Your task to perform on an android device: Empty the shopping cart on walmart. Image 0: 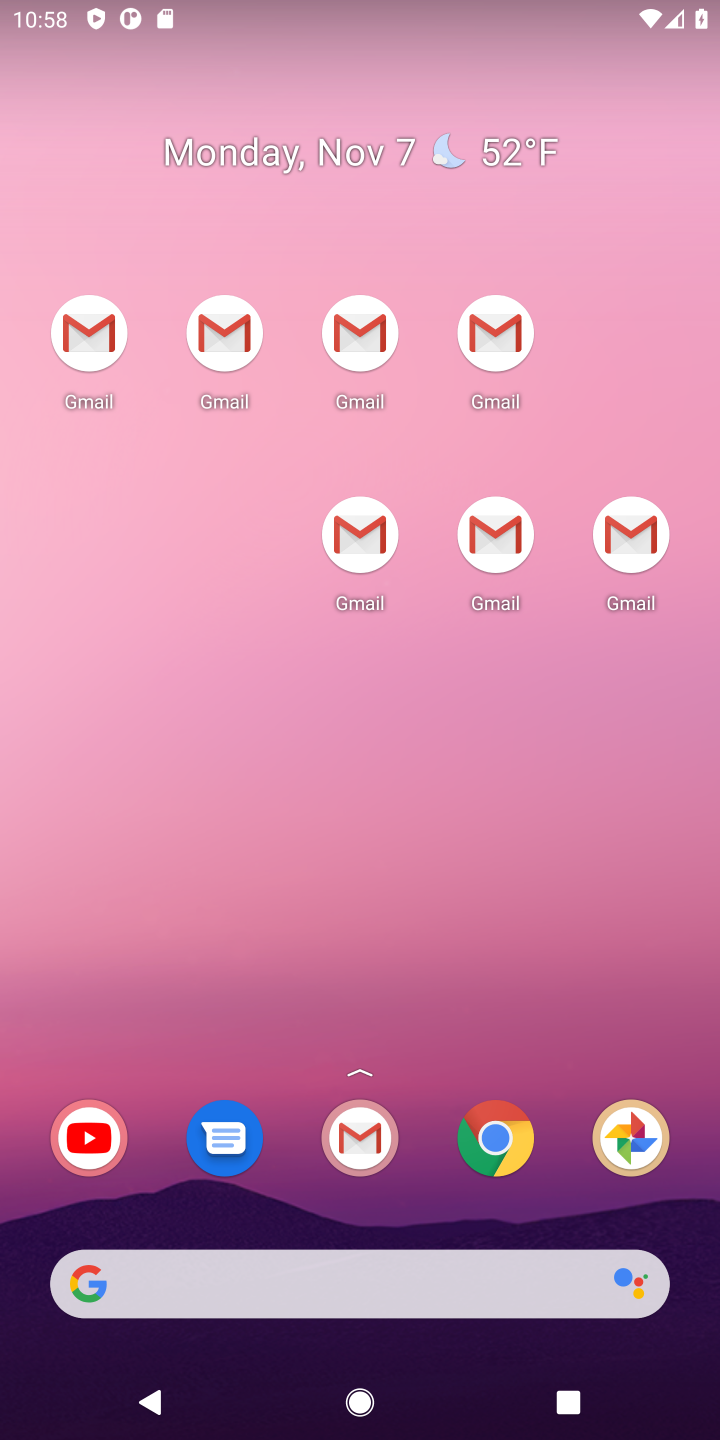
Step 0: drag from (389, 1215) to (391, 0)
Your task to perform on an android device: Empty the shopping cart on walmart. Image 1: 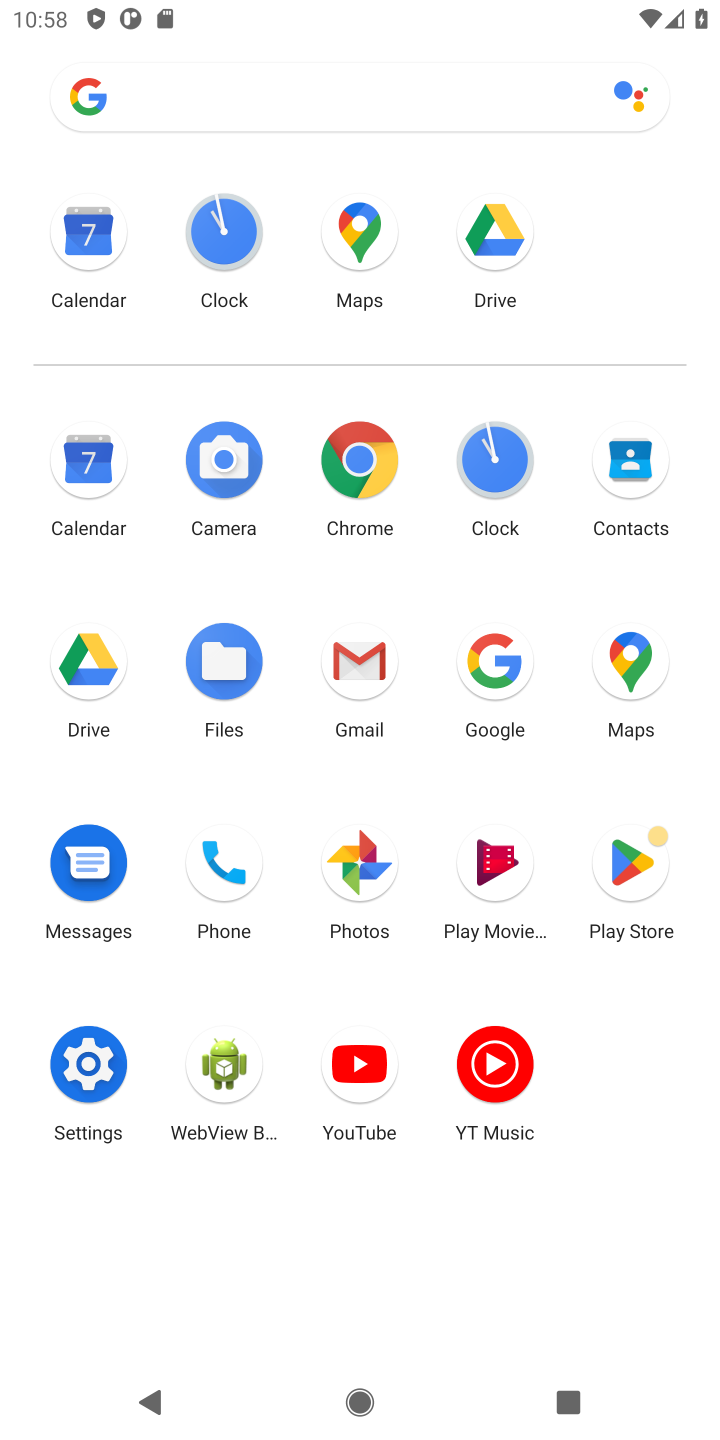
Step 1: click (522, 695)
Your task to perform on an android device: Empty the shopping cart on walmart. Image 2: 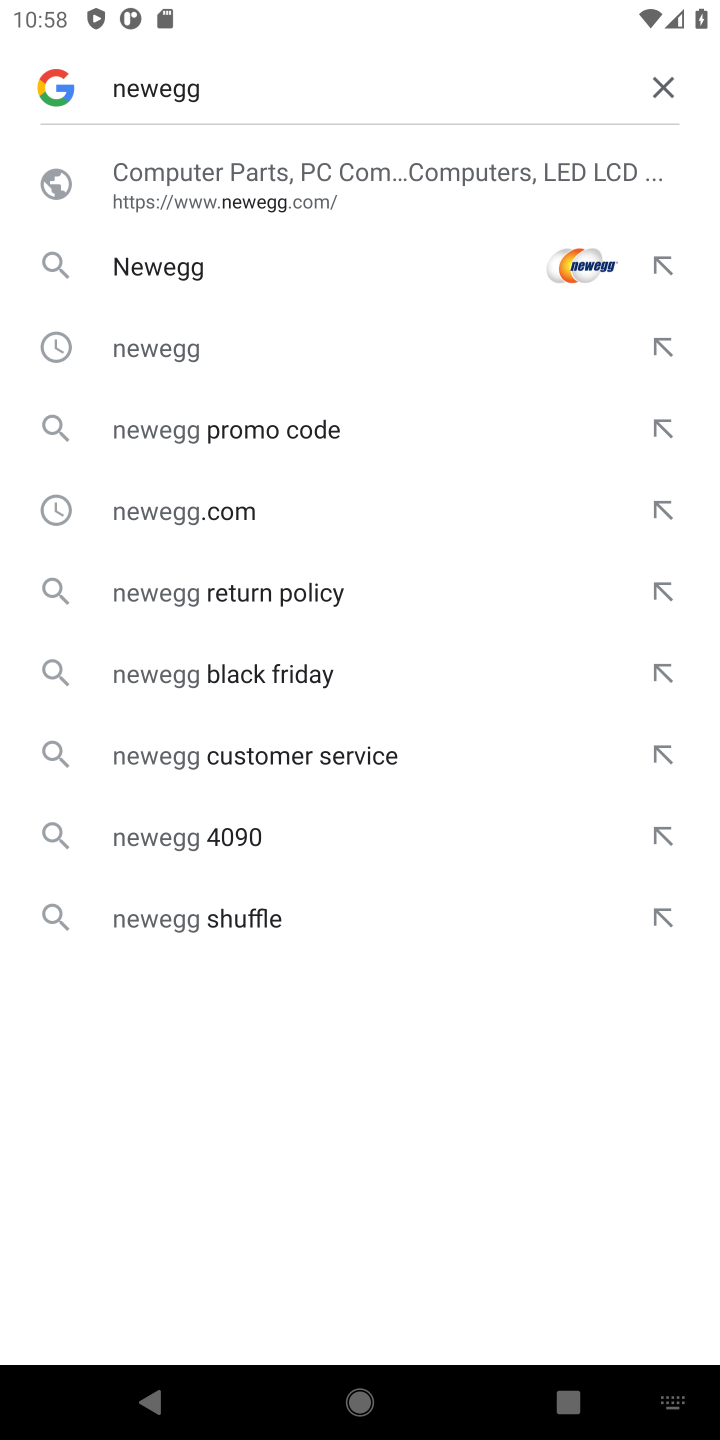
Step 2: click (671, 88)
Your task to perform on an android device: Empty the shopping cart on walmart. Image 3: 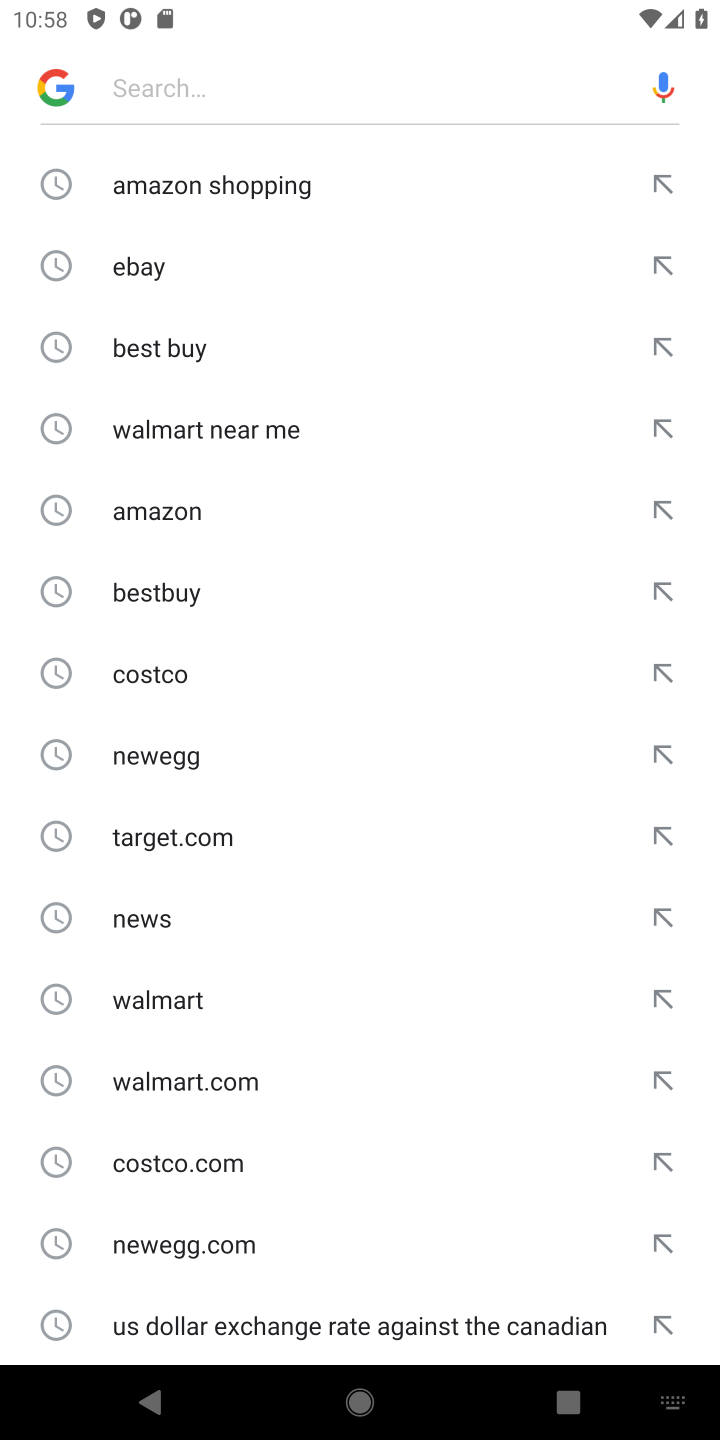
Step 3: type "walmart"
Your task to perform on an android device: Empty the shopping cart on walmart. Image 4: 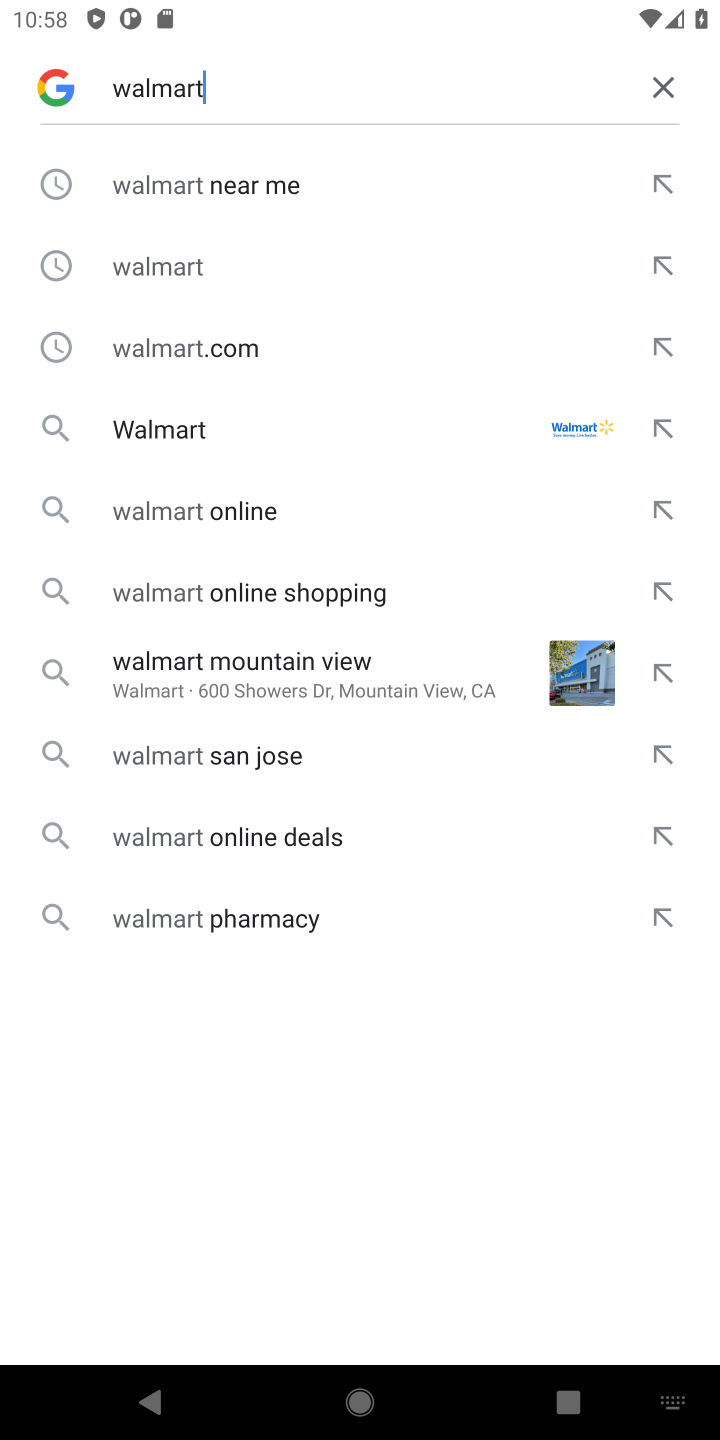
Step 4: click (335, 261)
Your task to perform on an android device: Empty the shopping cart on walmart. Image 5: 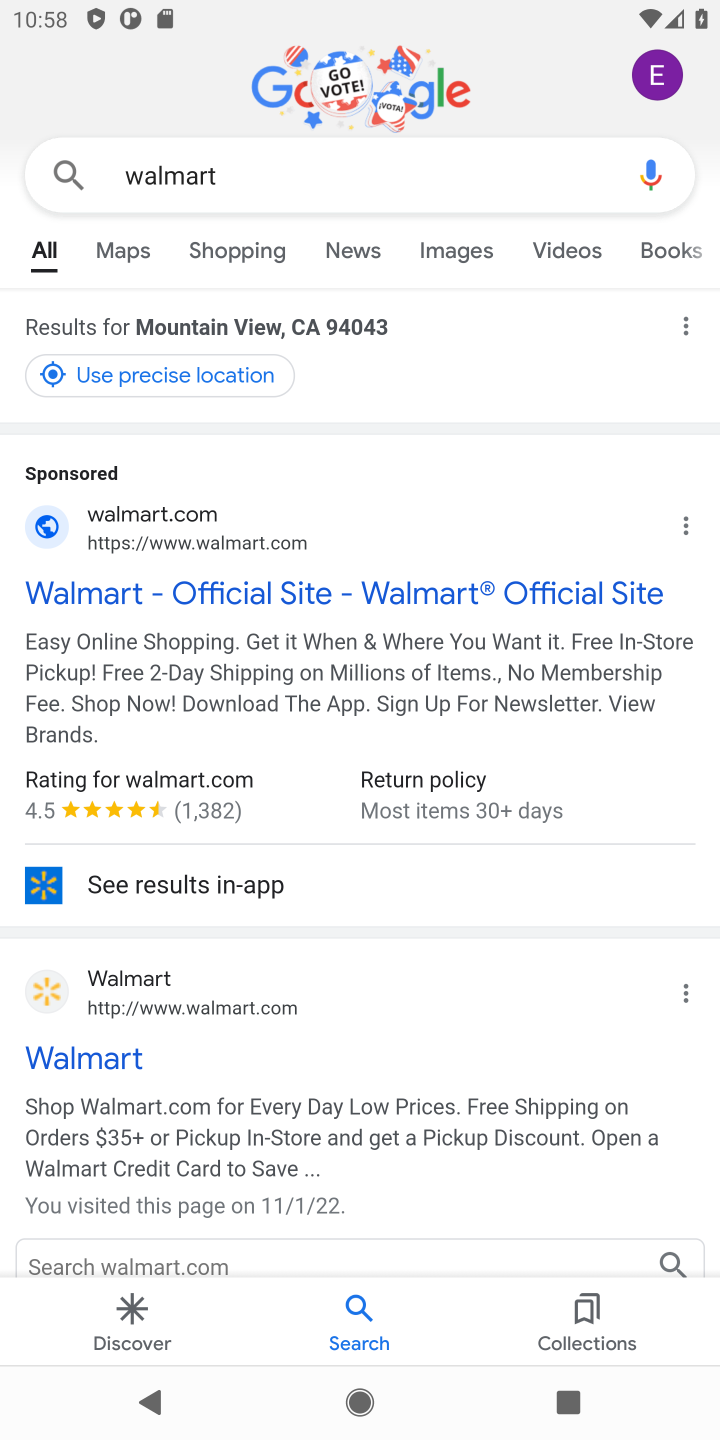
Step 5: click (245, 597)
Your task to perform on an android device: Empty the shopping cart on walmart. Image 6: 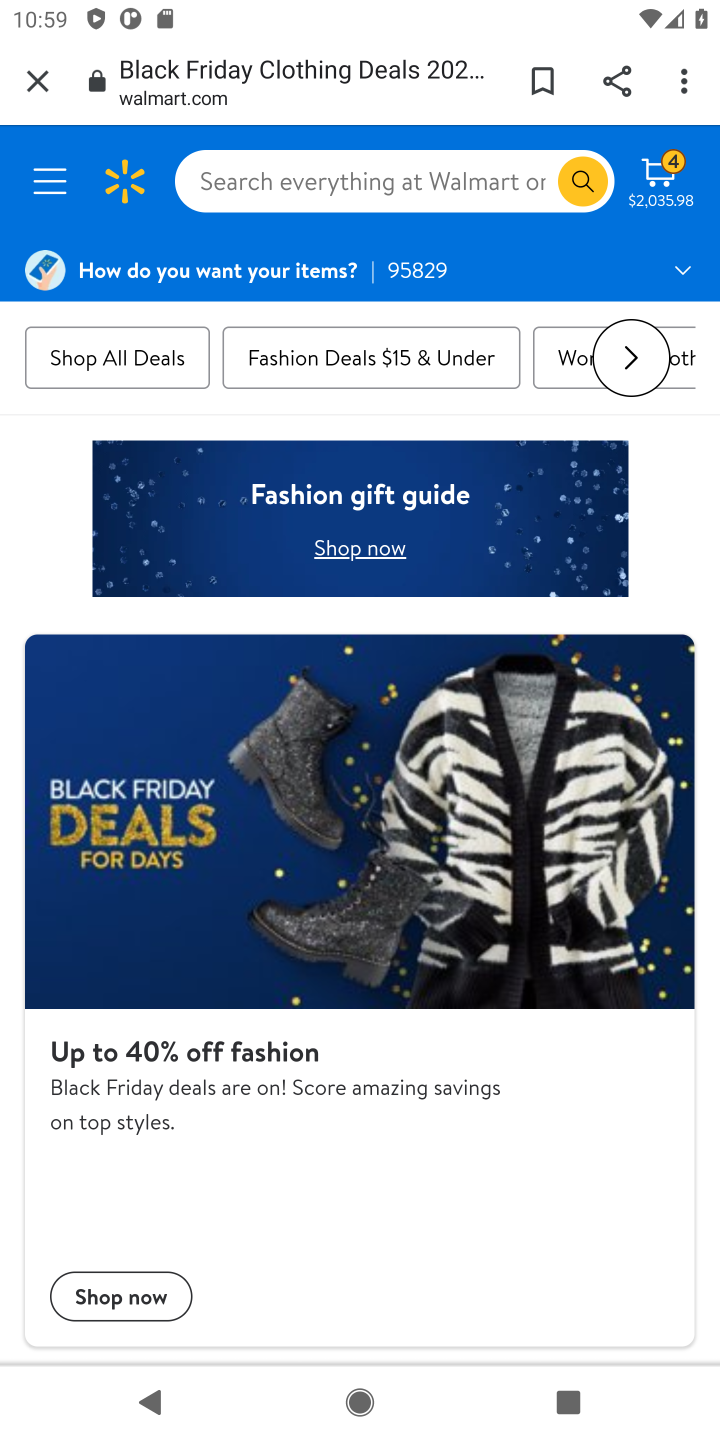
Step 6: click (683, 194)
Your task to perform on an android device: Empty the shopping cart on walmart. Image 7: 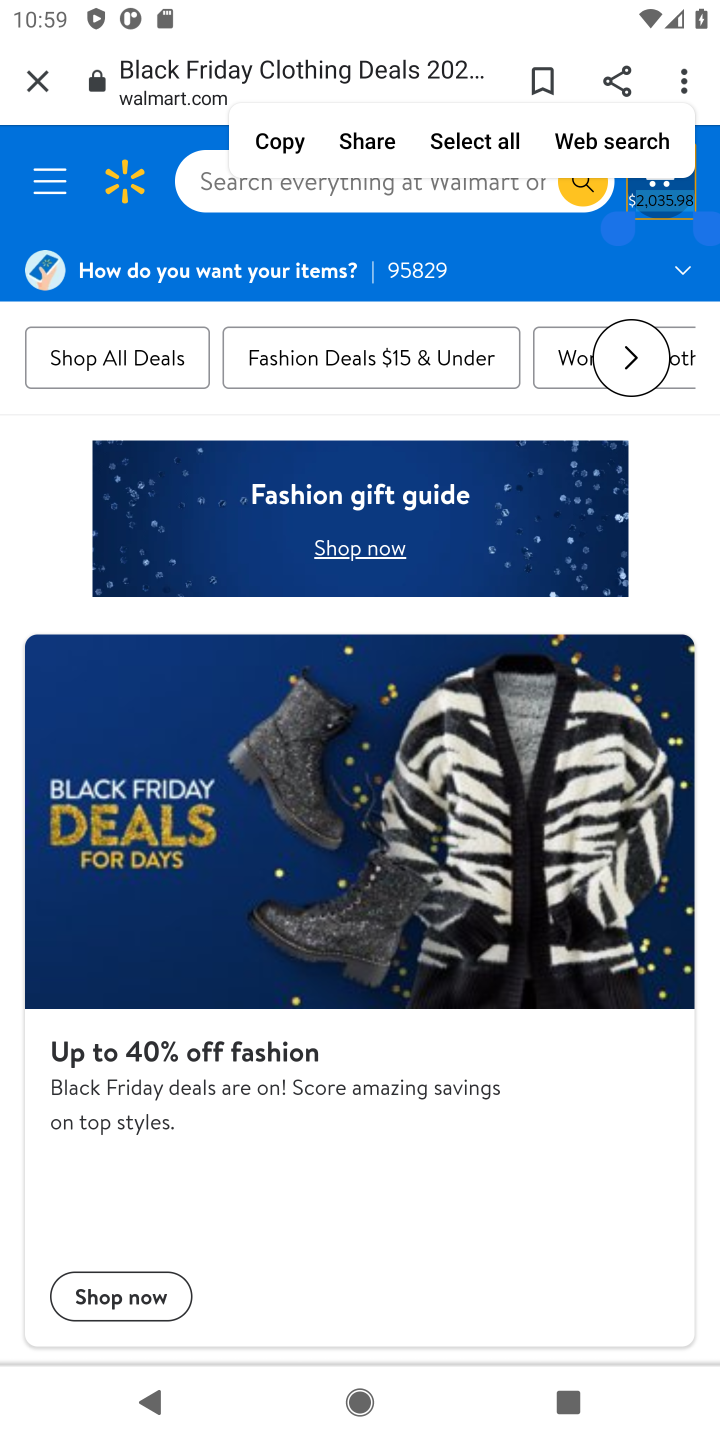
Step 7: click (550, 283)
Your task to perform on an android device: Empty the shopping cart on walmart. Image 8: 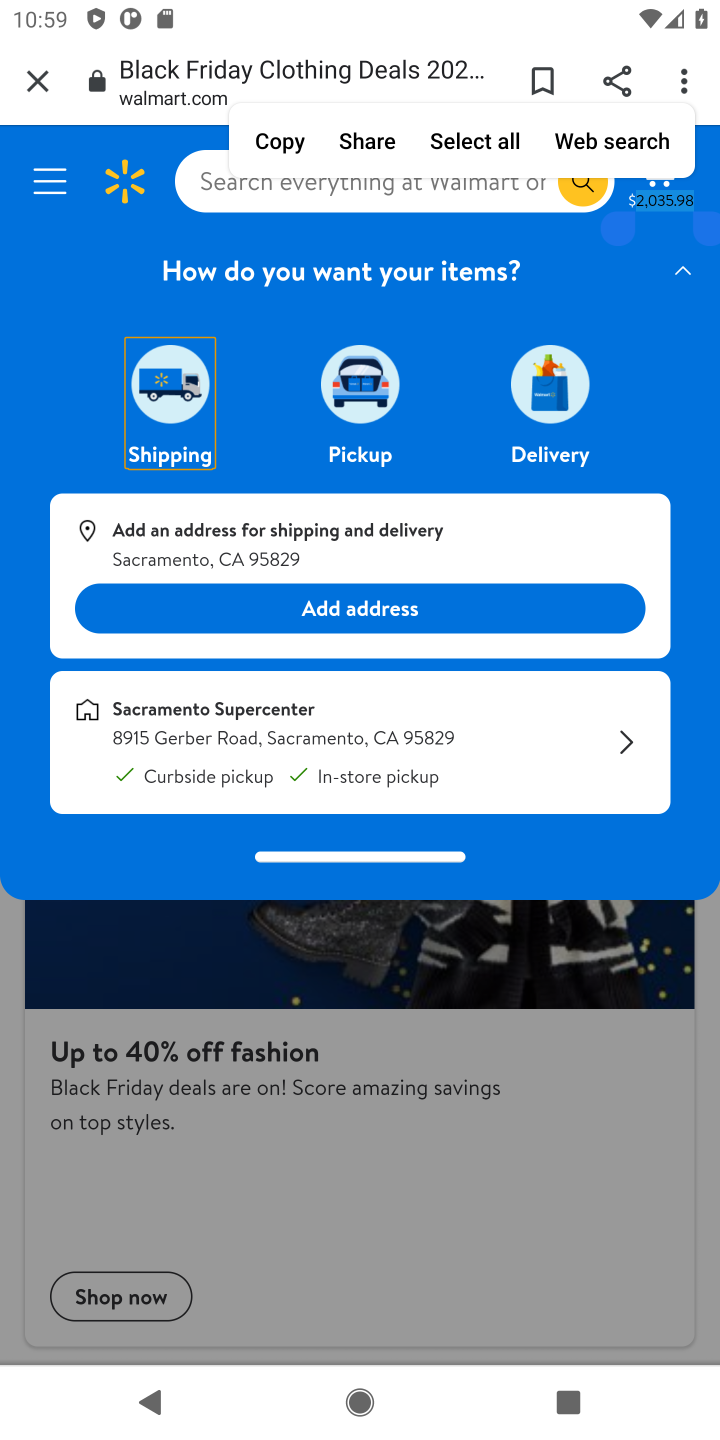
Step 8: click (624, 944)
Your task to perform on an android device: Empty the shopping cart on walmart. Image 9: 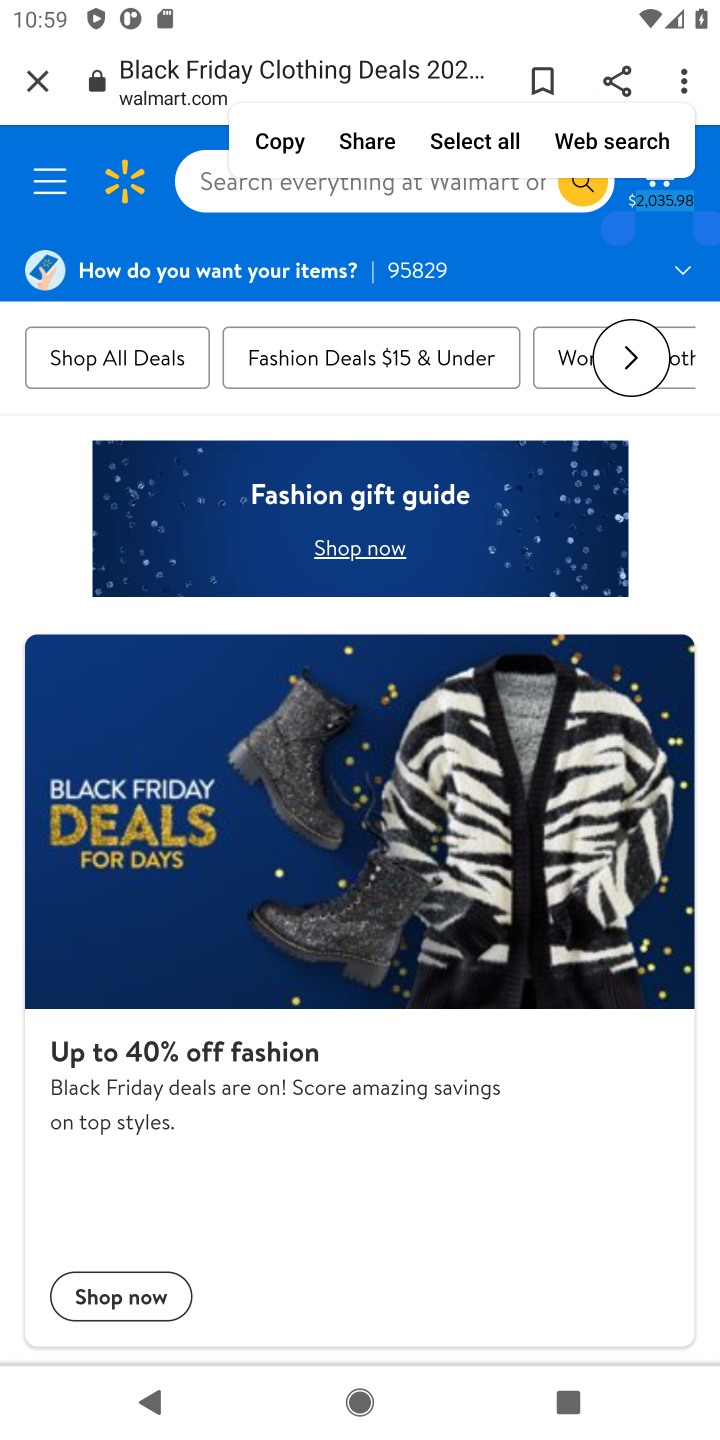
Step 9: click (671, 803)
Your task to perform on an android device: Empty the shopping cart on walmart. Image 10: 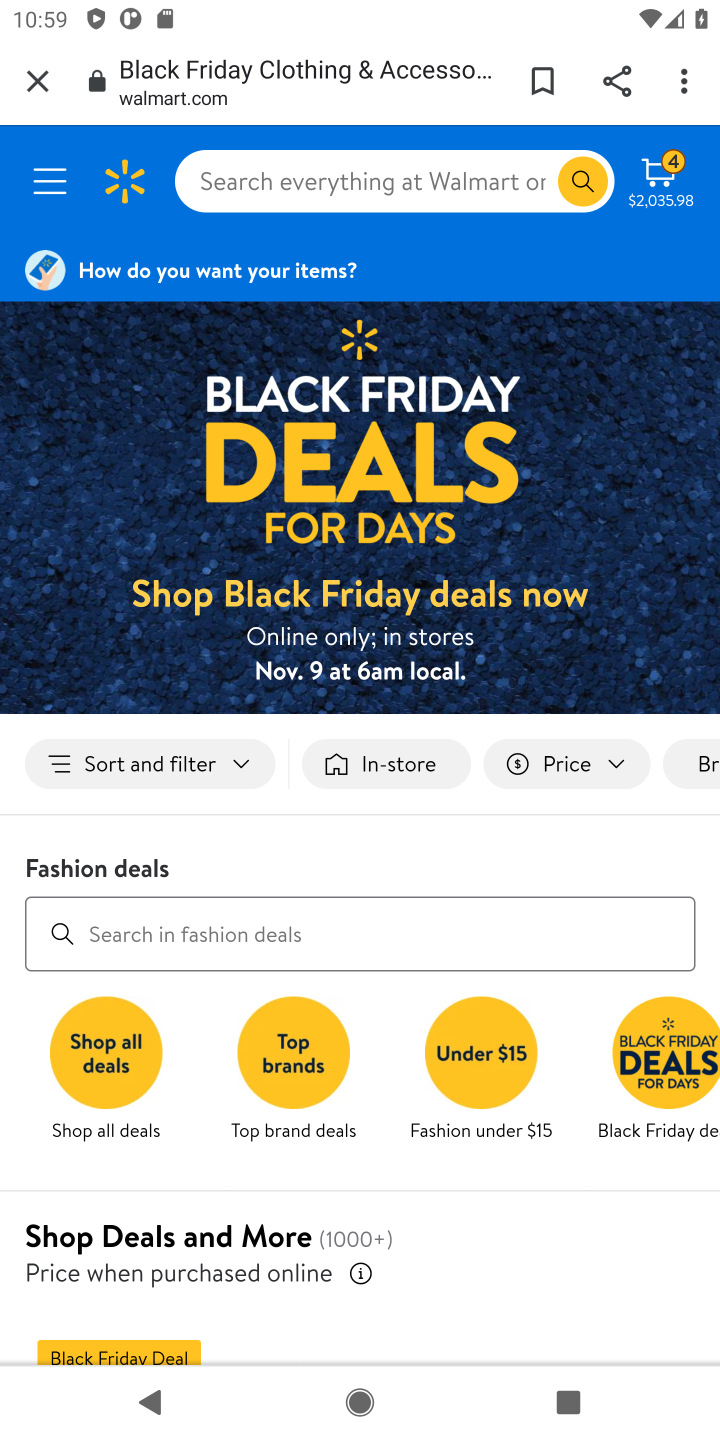
Step 10: click (675, 188)
Your task to perform on an android device: Empty the shopping cart on walmart. Image 11: 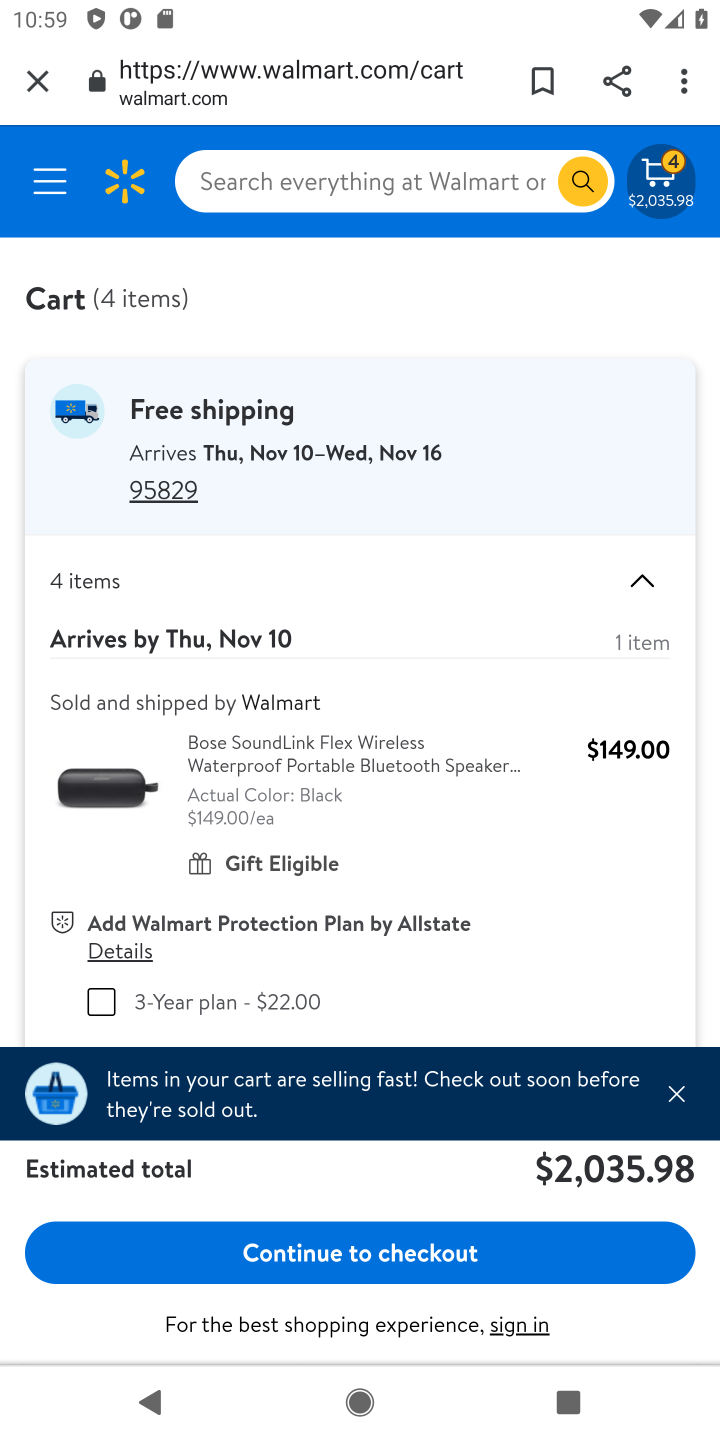
Step 11: drag from (577, 787) to (601, 408)
Your task to perform on an android device: Empty the shopping cart on walmart. Image 12: 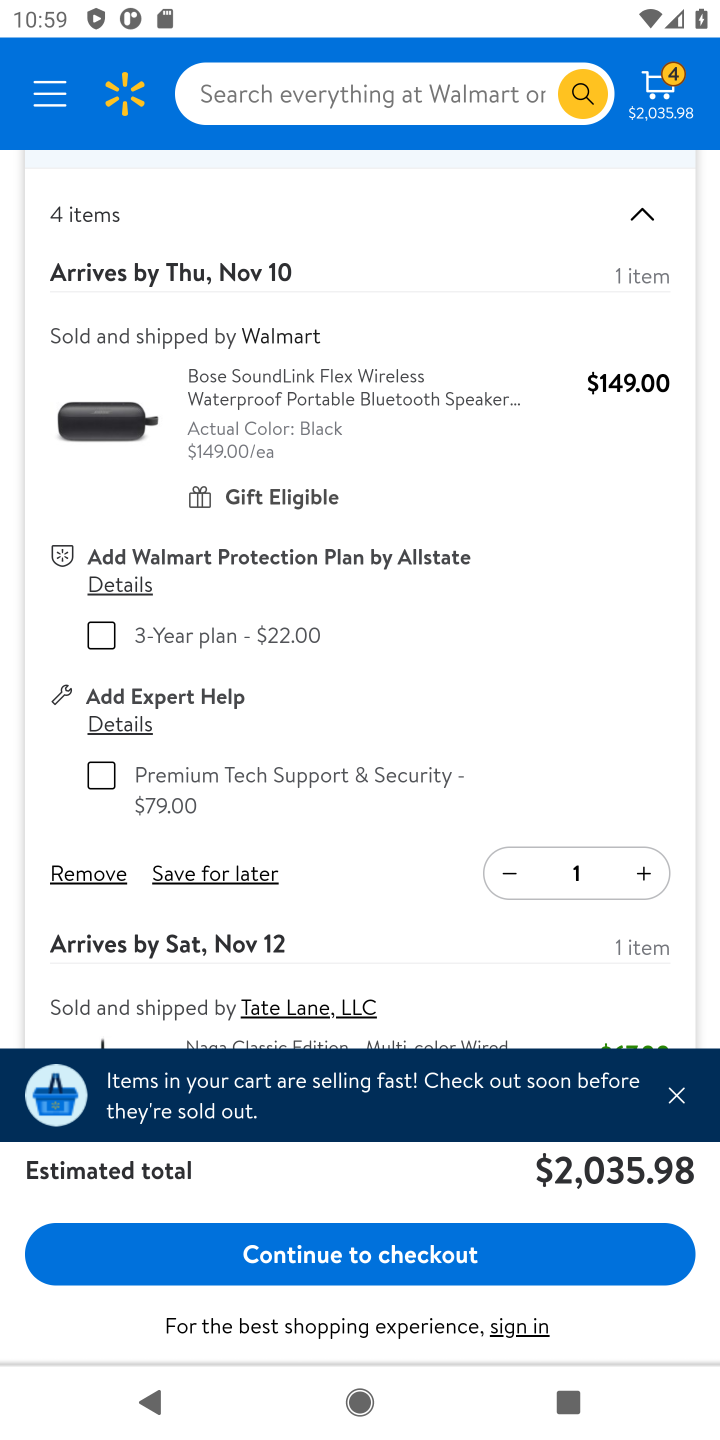
Step 12: click (508, 863)
Your task to perform on an android device: Empty the shopping cart on walmart. Image 13: 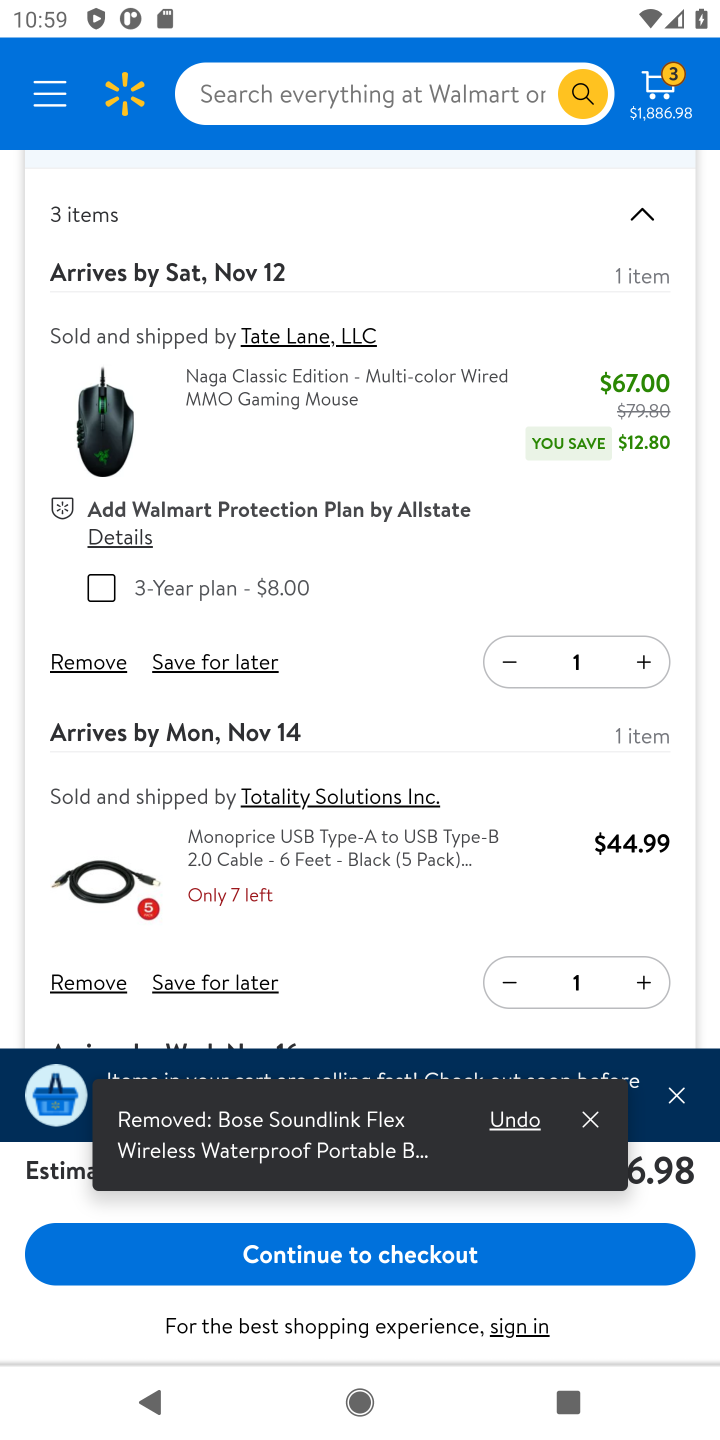
Step 13: click (496, 659)
Your task to perform on an android device: Empty the shopping cart on walmart. Image 14: 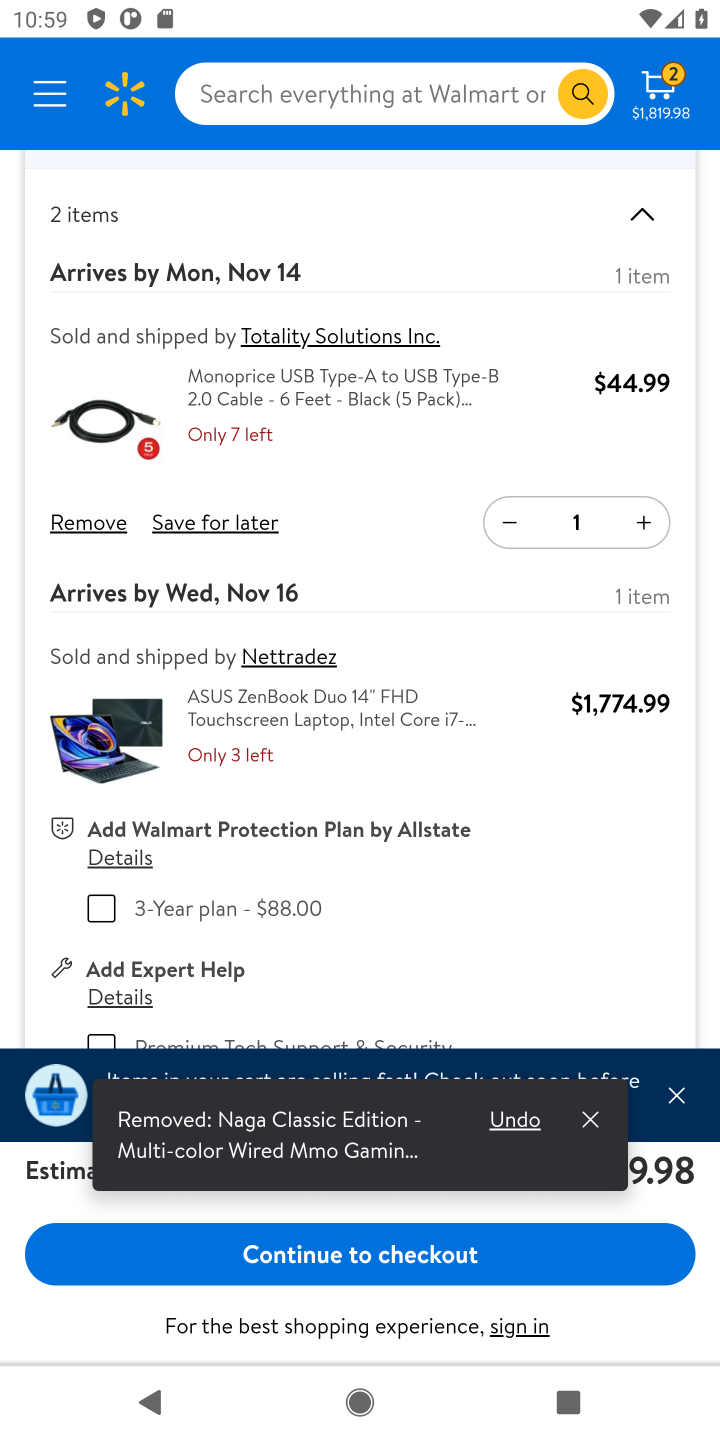
Step 14: click (511, 522)
Your task to perform on an android device: Empty the shopping cart on walmart. Image 15: 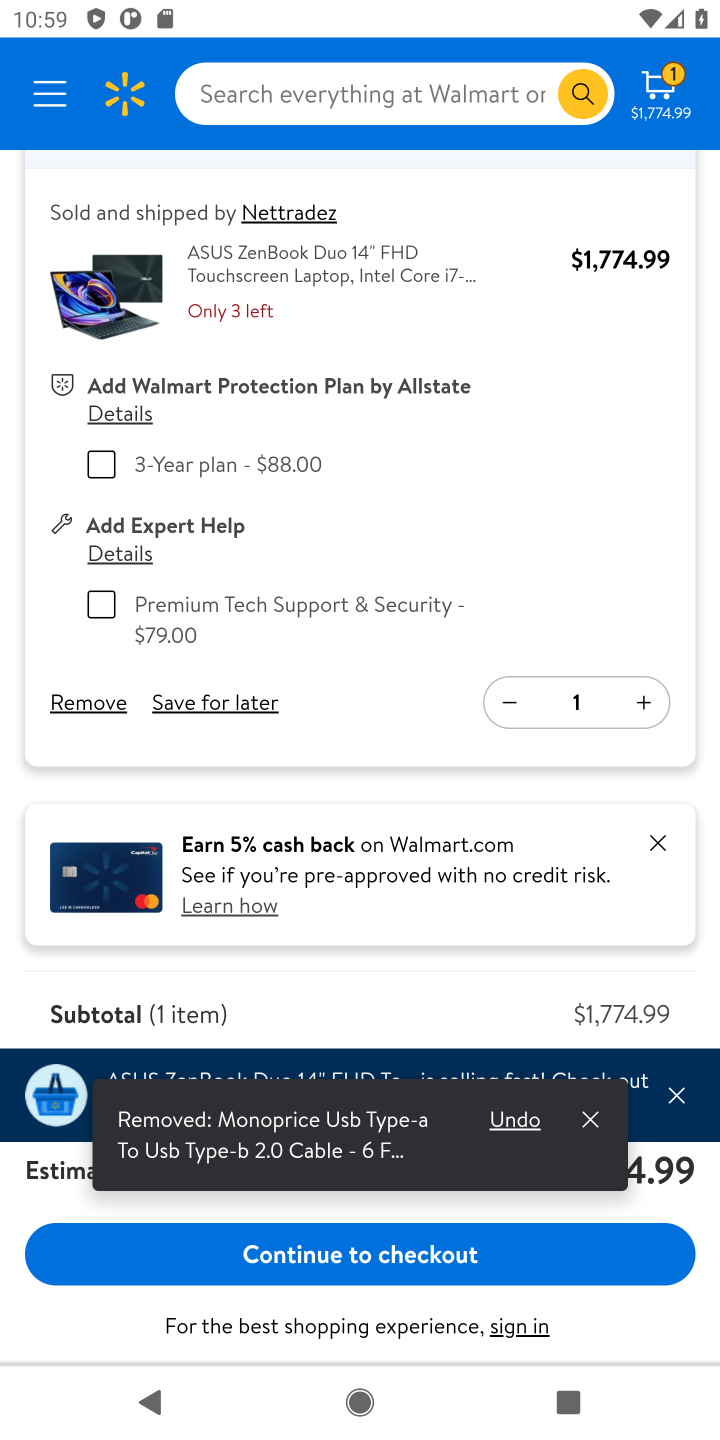
Step 15: click (511, 700)
Your task to perform on an android device: Empty the shopping cart on walmart. Image 16: 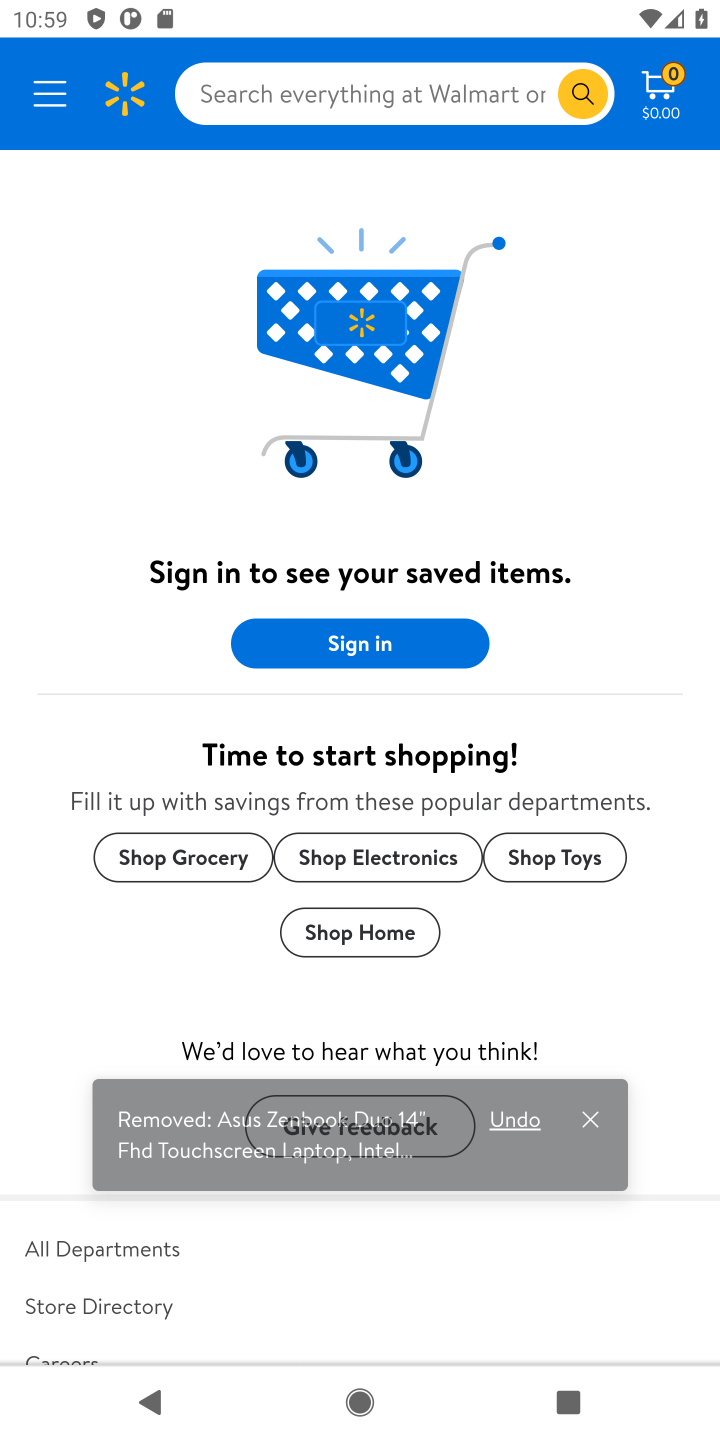
Step 16: task complete